Your task to perform on an android device: open app "Google Sheets" Image 0: 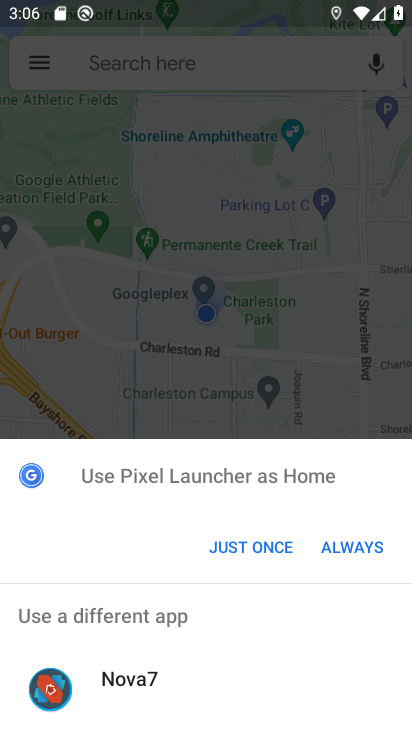
Step 0: click (254, 532)
Your task to perform on an android device: open app "Google Sheets" Image 1: 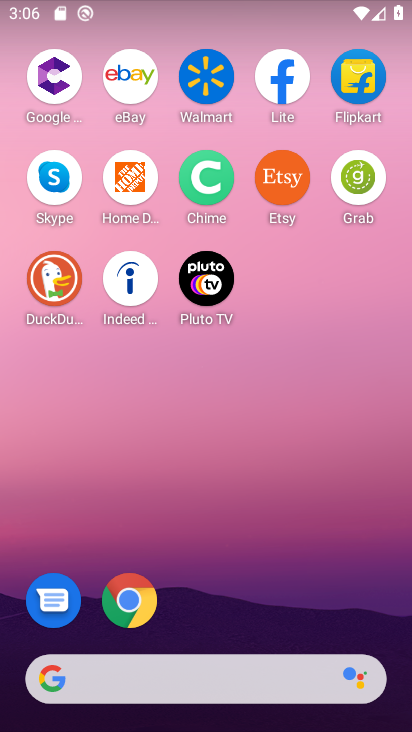
Step 1: drag from (225, 652) to (302, 111)
Your task to perform on an android device: open app "Google Sheets" Image 2: 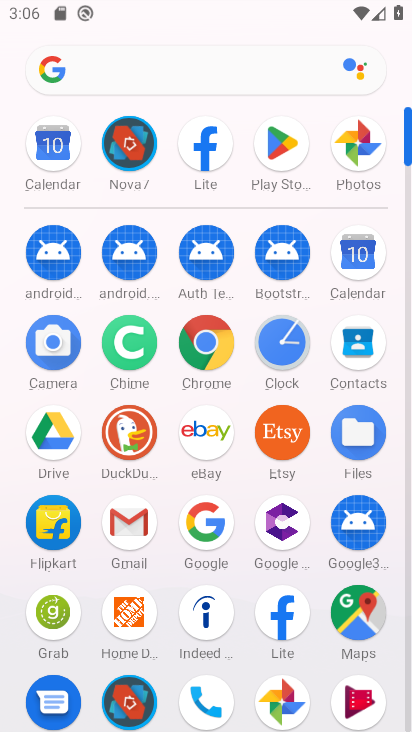
Step 2: click (284, 153)
Your task to perform on an android device: open app "Google Sheets" Image 3: 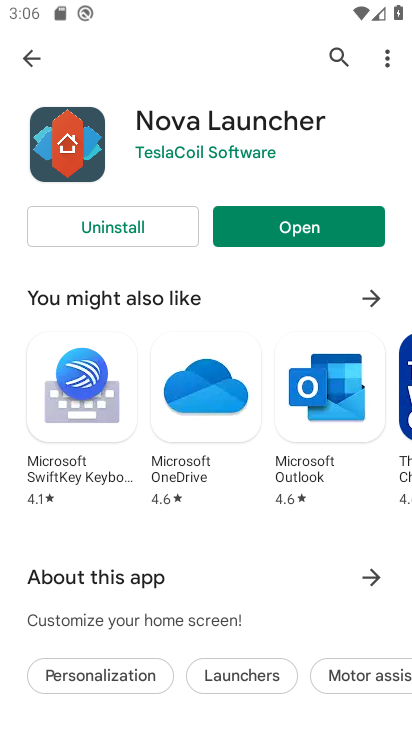
Step 3: click (346, 61)
Your task to perform on an android device: open app "Google Sheets" Image 4: 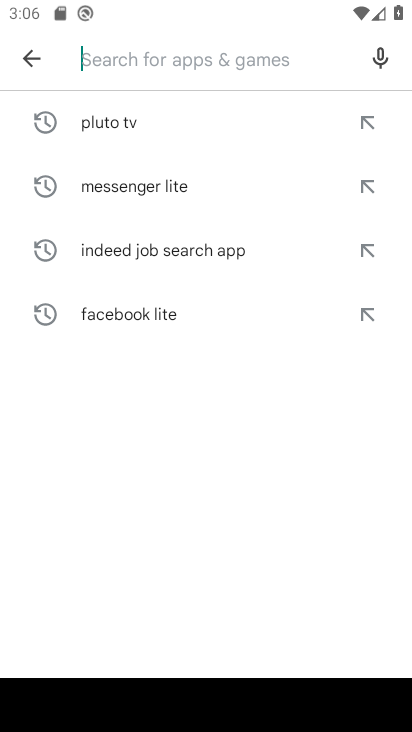
Step 4: click (148, 64)
Your task to perform on an android device: open app "Google Sheets" Image 5: 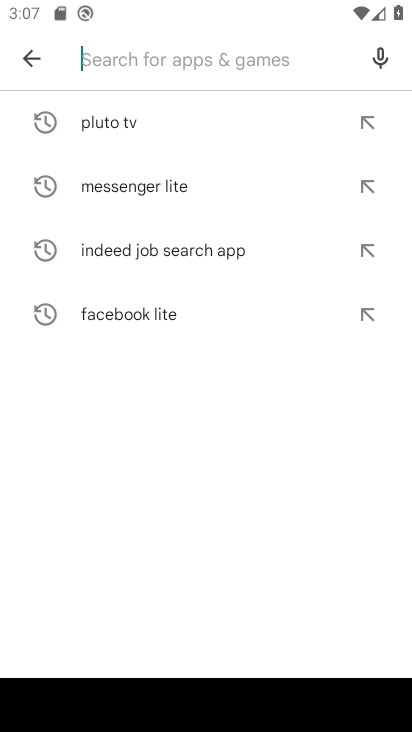
Step 5: click (146, 57)
Your task to perform on an android device: open app "Google Sheets" Image 6: 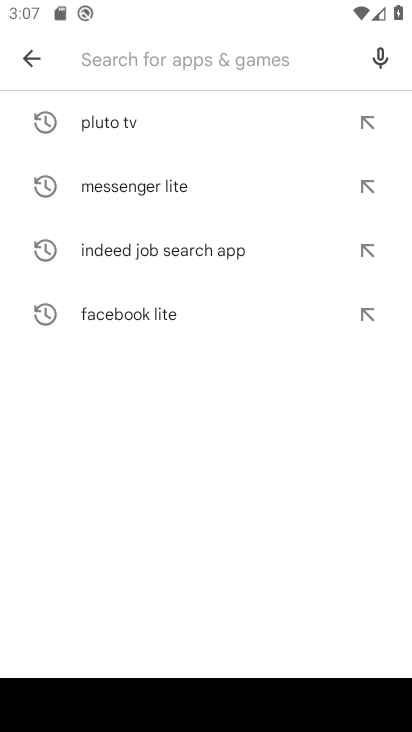
Step 6: click (158, 62)
Your task to perform on an android device: open app "Google Sheets" Image 7: 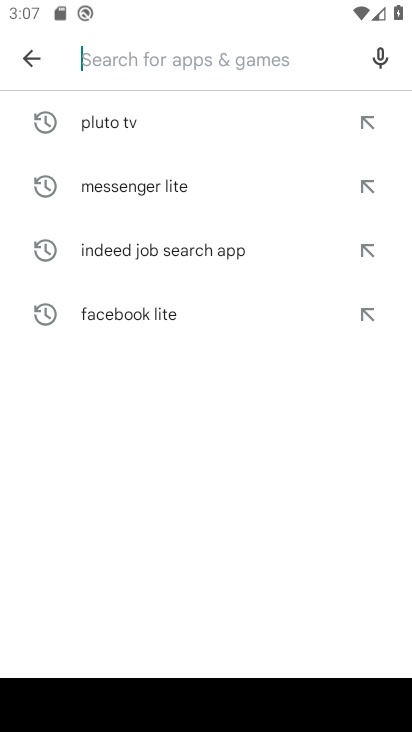
Step 7: type "Google Sheets"
Your task to perform on an android device: open app "Google Sheets" Image 8: 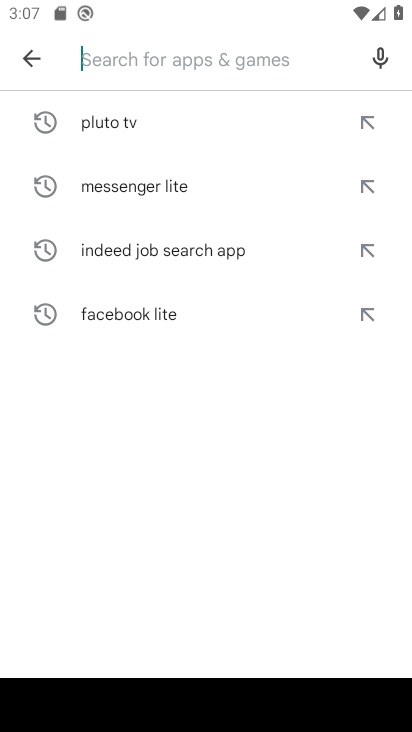
Step 8: click (211, 472)
Your task to perform on an android device: open app "Google Sheets" Image 9: 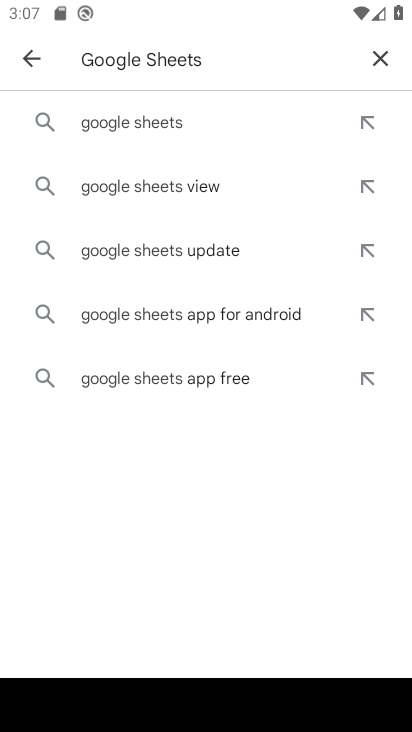
Step 9: click (177, 124)
Your task to perform on an android device: open app "Google Sheets" Image 10: 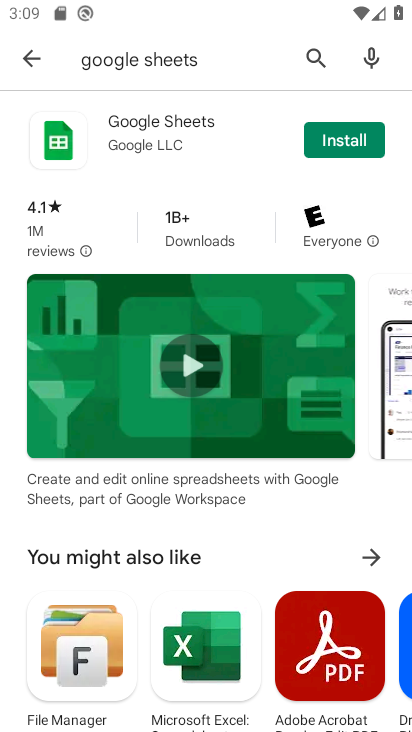
Step 10: task complete